Your task to perform on an android device: see tabs open on other devices in the chrome app Image 0: 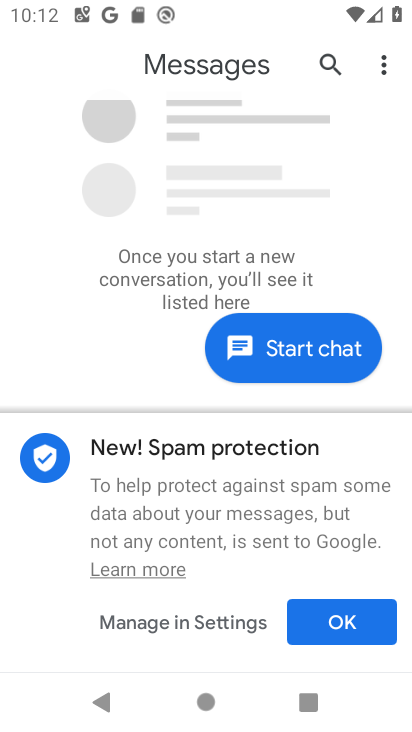
Step 0: press home button
Your task to perform on an android device: see tabs open on other devices in the chrome app Image 1: 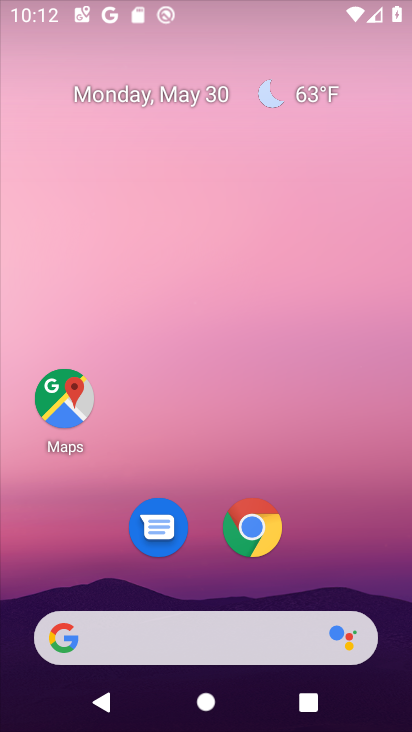
Step 1: drag from (281, 576) to (298, 374)
Your task to perform on an android device: see tabs open on other devices in the chrome app Image 2: 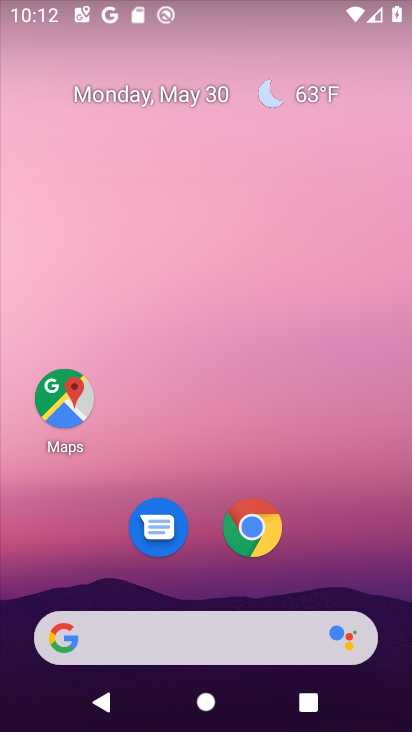
Step 2: click (248, 516)
Your task to perform on an android device: see tabs open on other devices in the chrome app Image 3: 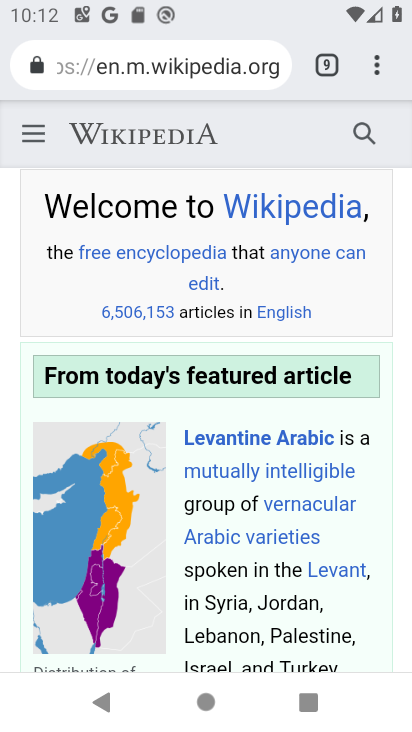
Step 3: click (369, 62)
Your task to perform on an android device: see tabs open on other devices in the chrome app Image 4: 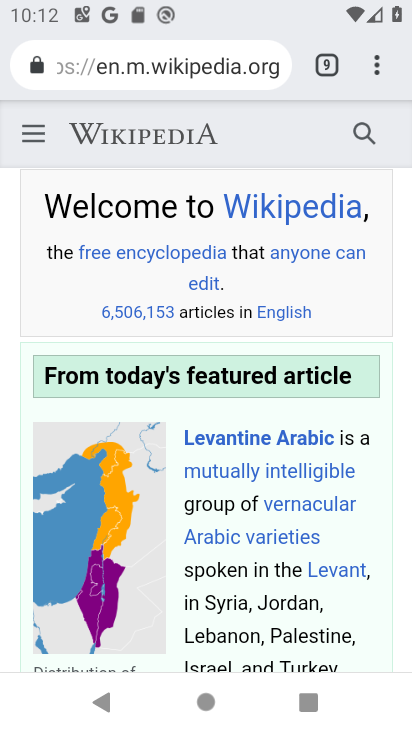
Step 4: click (371, 66)
Your task to perform on an android device: see tabs open on other devices in the chrome app Image 5: 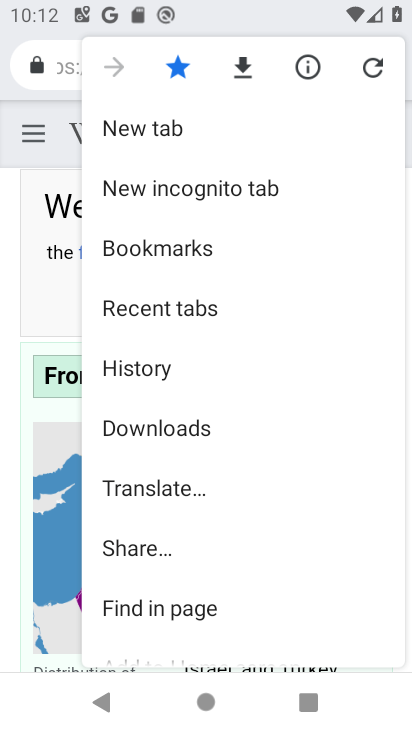
Step 5: click (180, 129)
Your task to perform on an android device: see tabs open on other devices in the chrome app Image 6: 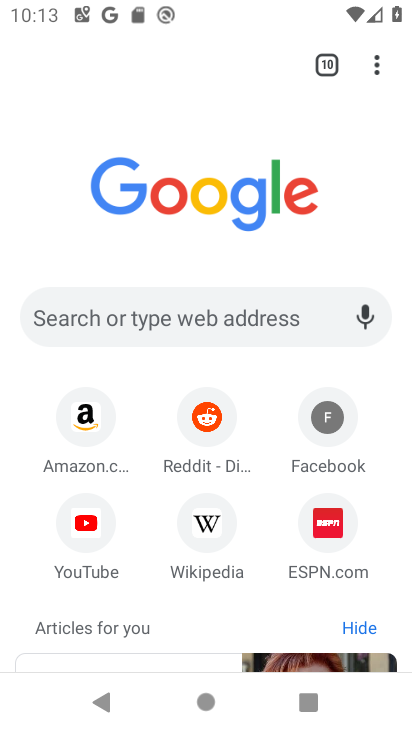
Step 6: task complete